Your task to perform on an android device: When is my next appointment? Image 0: 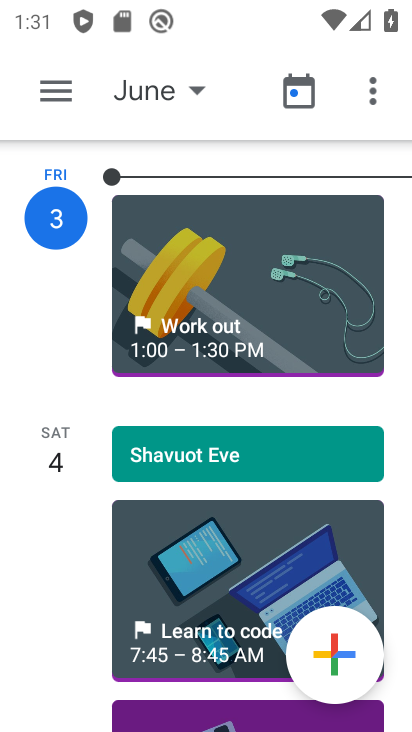
Step 0: press home button
Your task to perform on an android device: When is my next appointment? Image 1: 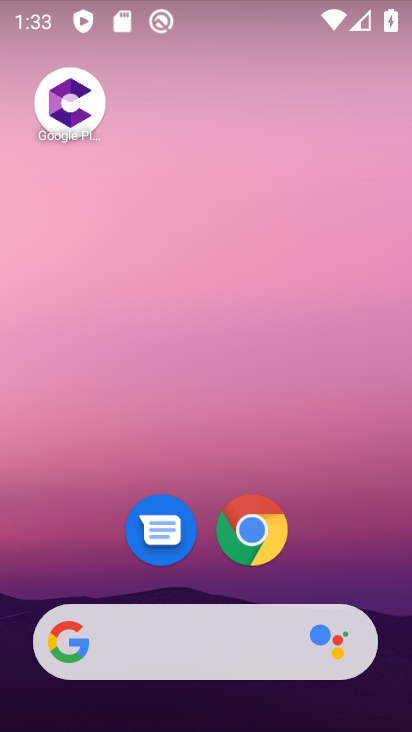
Step 1: drag from (307, 391) to (282, 6)
Your task to perform on an android device: When is my next appointment? Image 2: 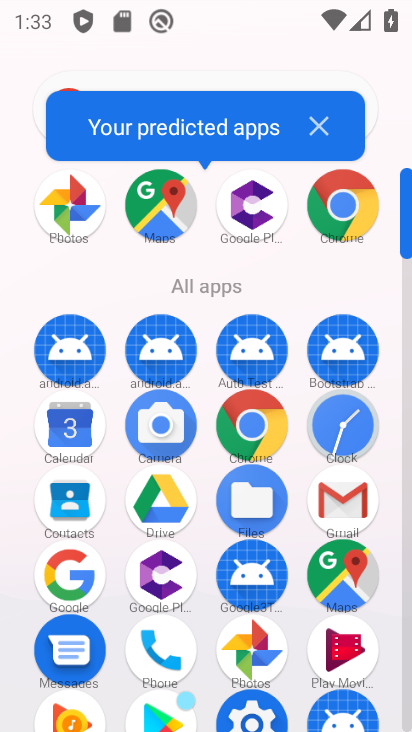
Step 2: drag from (204, 654) to (229, 476)
Your task to perform on an android device: When is my next appointment? Image 3: 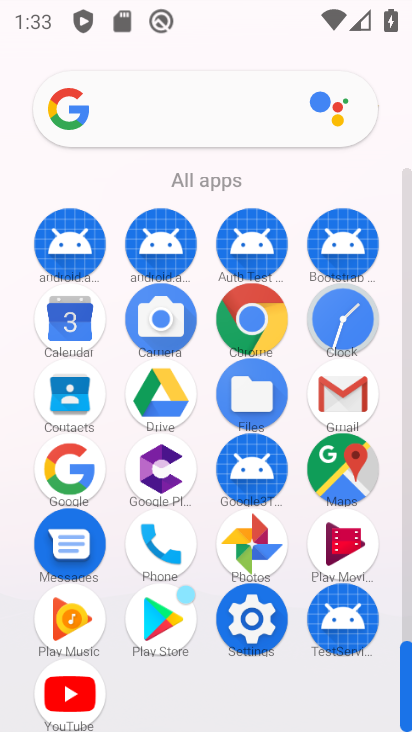
Step 3: drag from (210, 569) to (231, 389)
Your task to perform on an android device: When is my next appointment? Image 4: 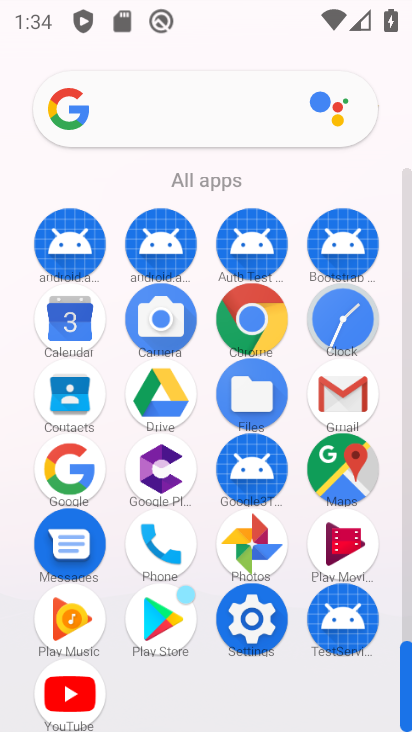
Step 4: drag from (255, 542) to (283, 305)
Your task to perform on an android device: When is my next appointment? Image 5: 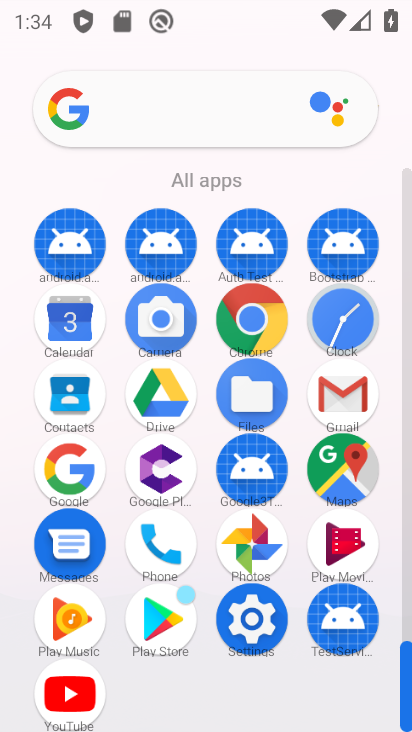
Step 5: drag from (199, 615) to (209, 414)
Your task to perform on an android device: When is my next appointment? Image 6: 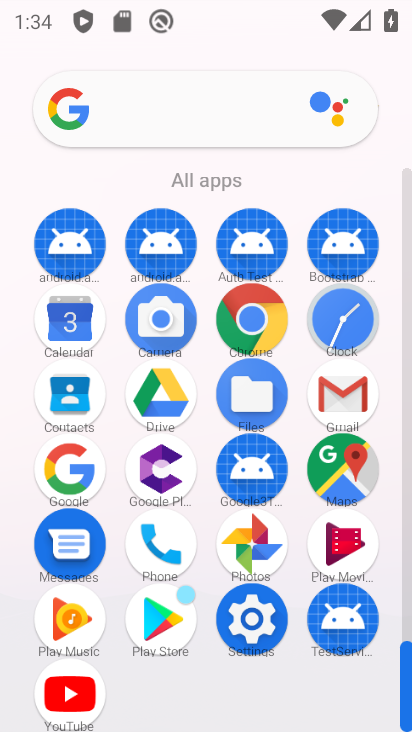
Step 6: click (69, 328)
Your task to perform on an android device: When is my next appointment? Image 7: 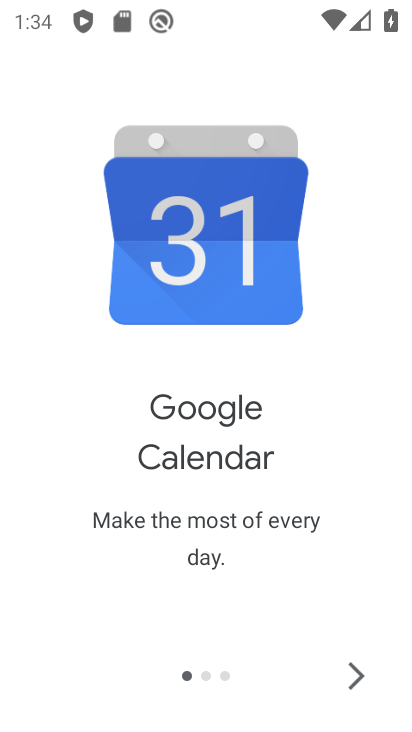
Step 7: click (363, 687)
Your task to perform on an android device: When is my next appointment? Image 8: 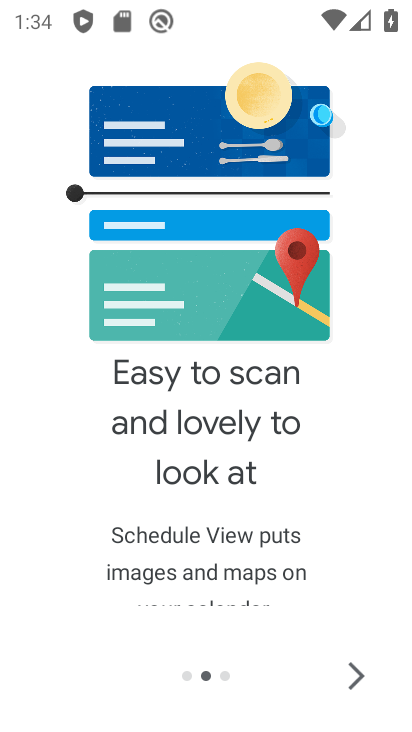
Step 8: click (360, 671)
Your task to perform on an android device: When is my next appointment? Image 9: 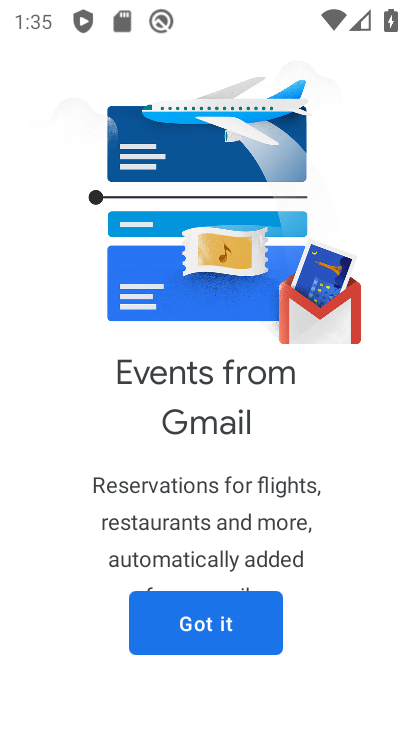
Step 9: click (208, 639)
Your task to perform on an android device: When is my next appointment? Image 10: 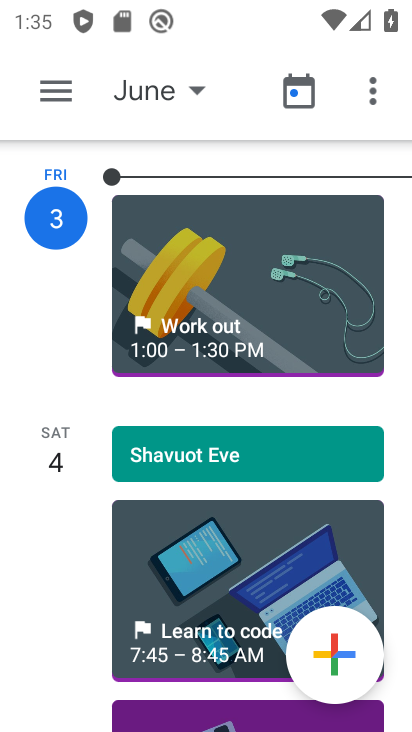
Step 10: task complete